Your task to perform on an android device: turn pop-ups on in chrome Image 0: 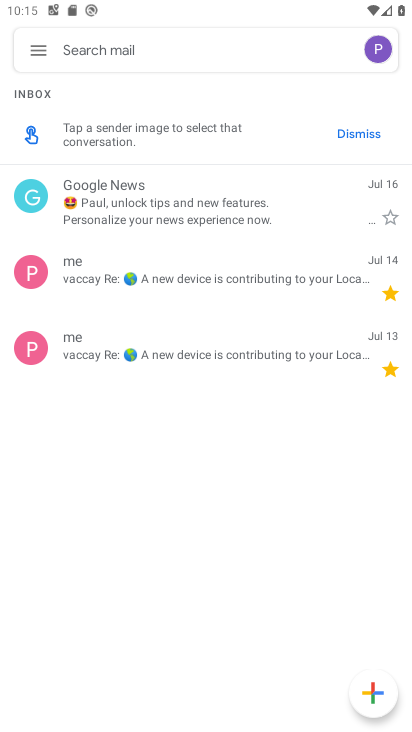
Step 0: press home button
Your task to perform on an android device: turn pop-ups on in chrome Image 1: 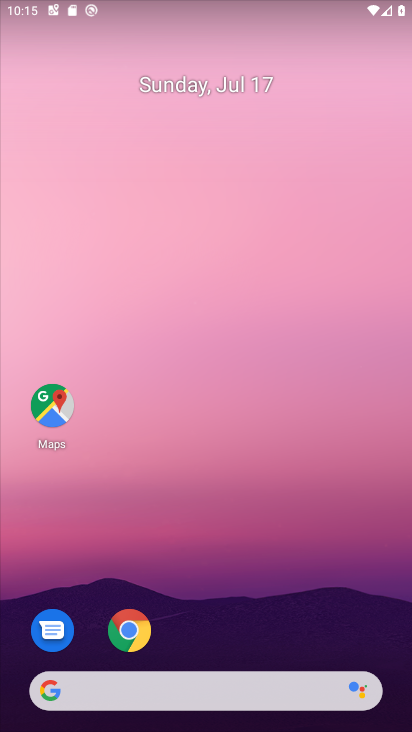
Step 1: click (140, 636)
Your task to perform on an android device: turn pop-ups on in chrome Image 2: 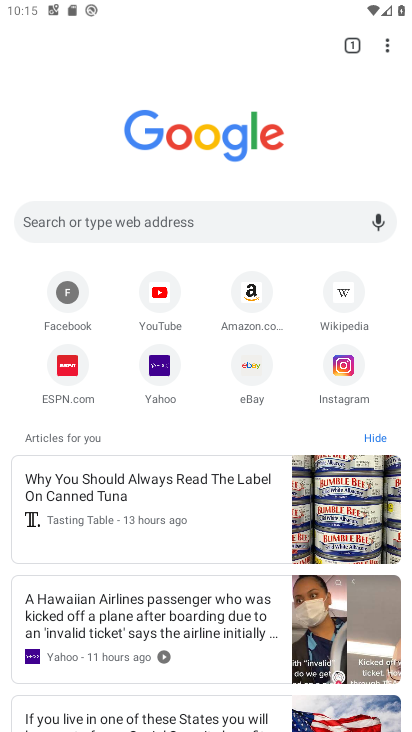
Step 2: click (389, 39)
Your task to perform on an android device: turn pop-ups on in chrome Image 3: 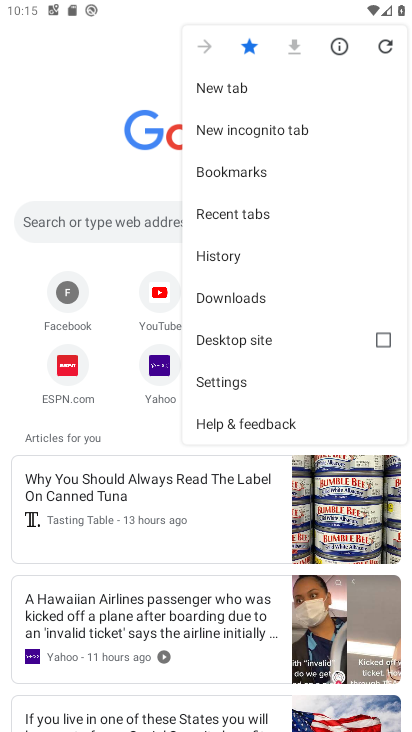
Step 3: click (243, 380)
Your task to perform on an android device: turn pop-ups on in chrome Image 4: 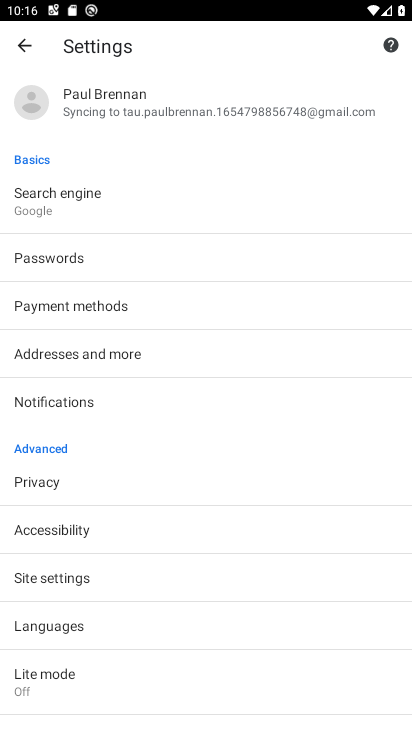
Step 4: click (81, 570)
Your task to perform on an android device: turn pop-ups on in chrome Image 5: 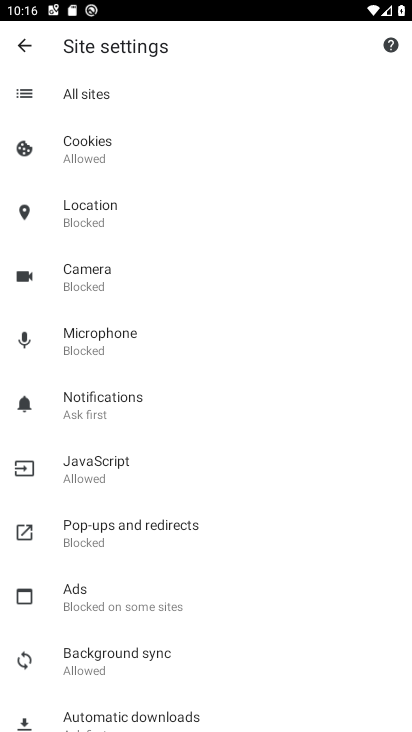
Step 5: click (101, 527)
Your task to perform on an android device: turn pop-ups on in chrome Image 6: 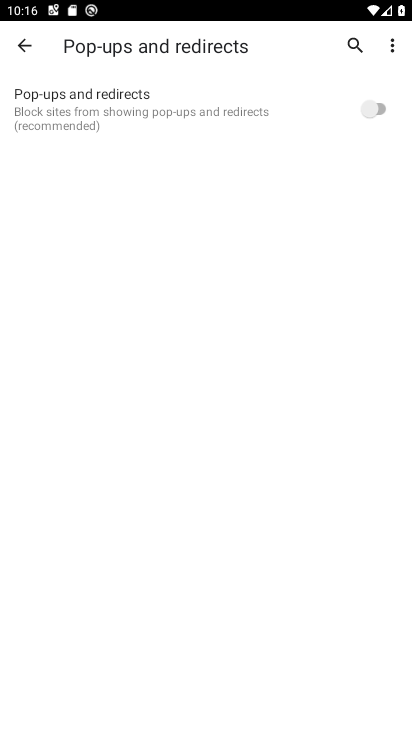
Step 6: click (372, 105)
Your task to perform on an android device: turn pop-ups on in chrome Image 7: 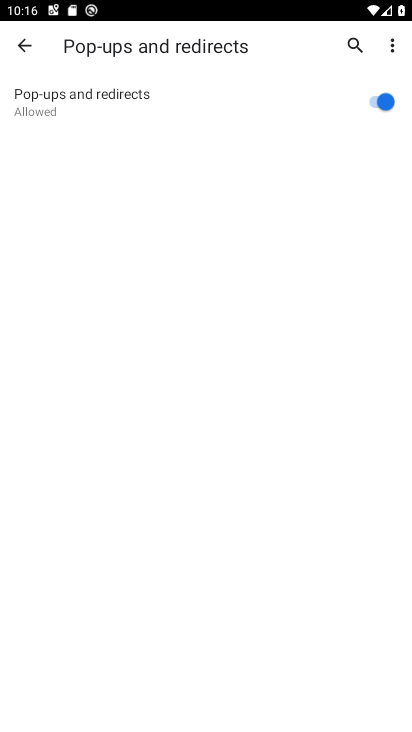
Step 7: task complete